Your task to perform on an android device: Go to wifi settings Image 0: 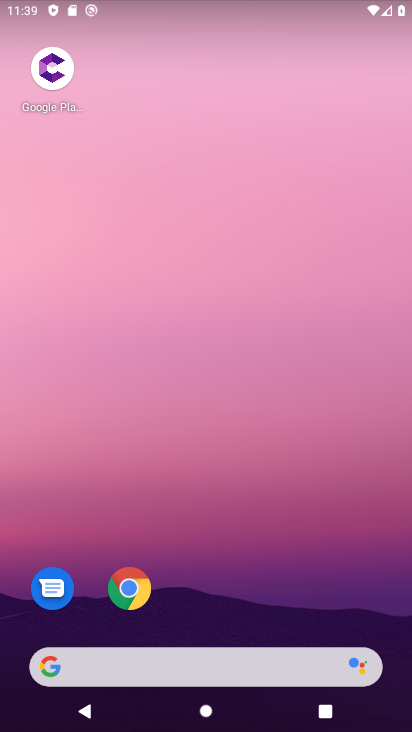
Step 0: drag from (217, 483) to (275, 186)
Your task to perform on an android device: Go to wifi settings Image 1: 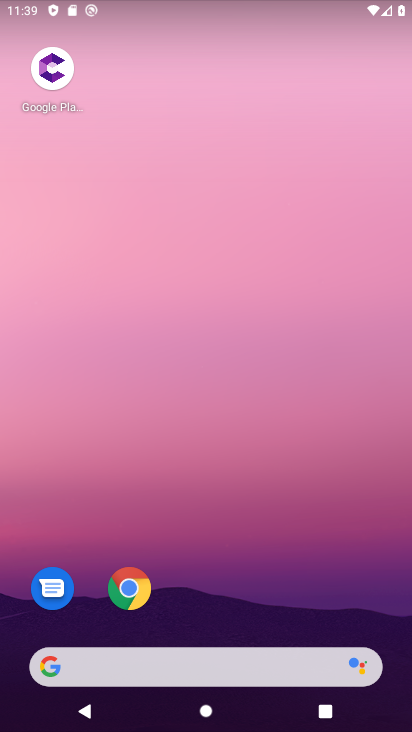
Step 1: drag from (177, 599) to (174, 245)
Your task to perform on an android device: Go to wifi settings Image 2: 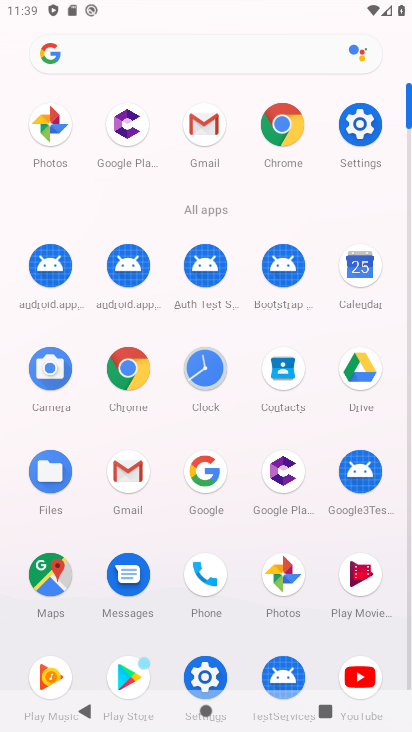
Step 2: click (359, 126)
Your task to perform on an android device: Go to wifi settings Image 3: 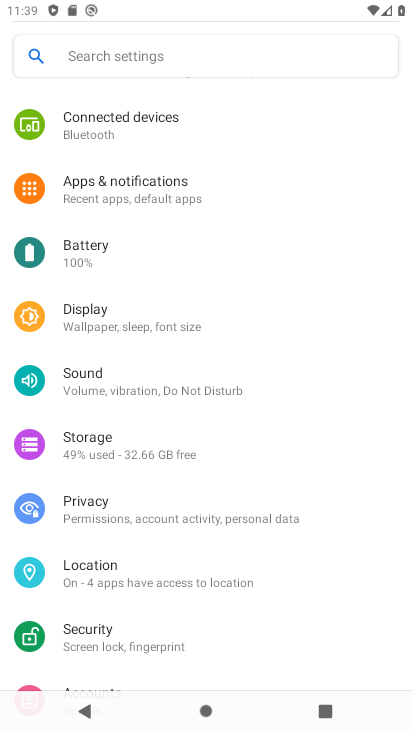
Step 3: drag from (233, 213) to (225, 627)
Your task to perform on an android device: Go to wifi settings Image 4: 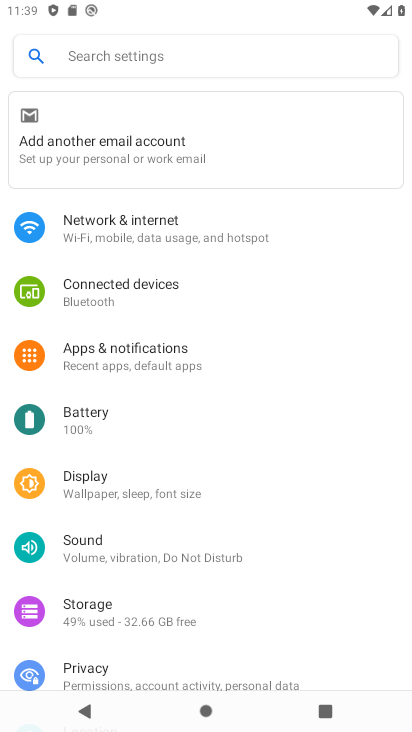
Step 4: click (202, 229)
Your task to perform on an android device: Go to wifi settings Image 5: 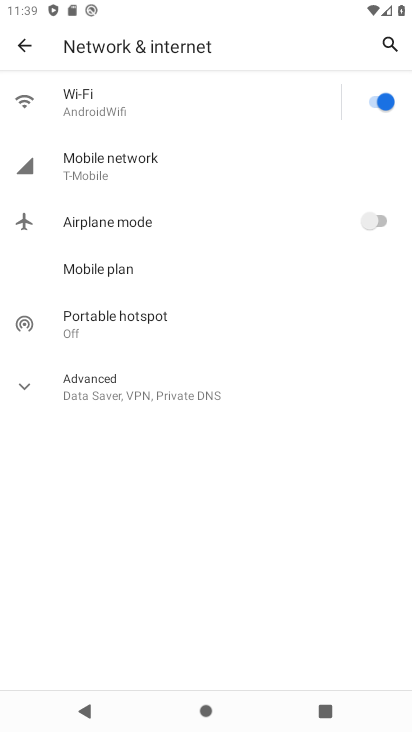
Step 5: click (117, 112)
Your task to perform on an android device: Go to wifi settings Image 6: 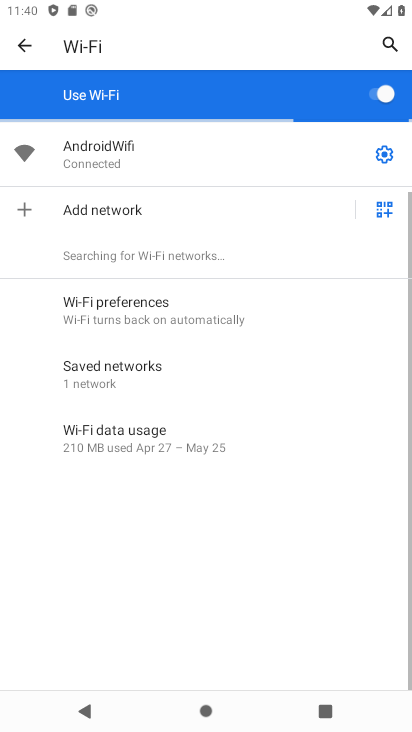
Step 6: task complete